Your task to perform on an android device: Show me popular games on the Play Store Image 0: 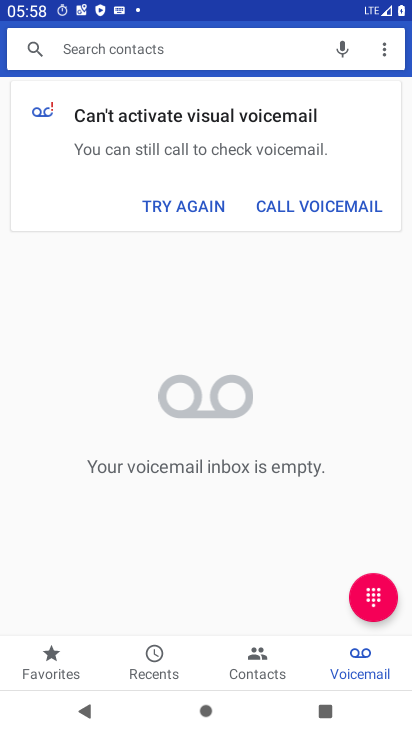
Step 0: press home button
Your task to perform on an android device: Show me popular games on the Play Store Image 1: 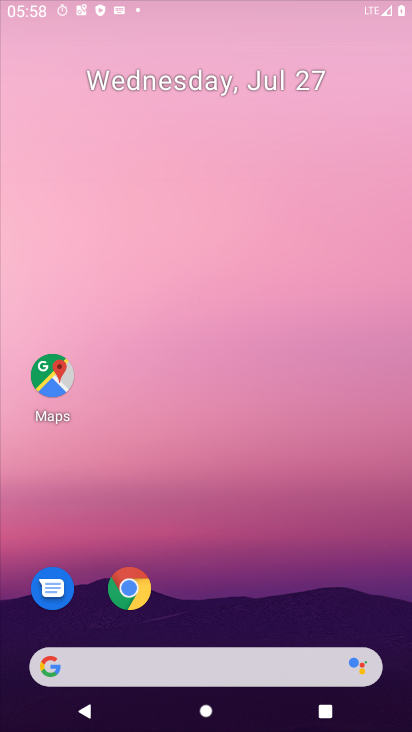
Step 1: drag from (246, 657) to (307, 56)
Your task to perform on an android device: Show me popular games on the Play Store Image 2: 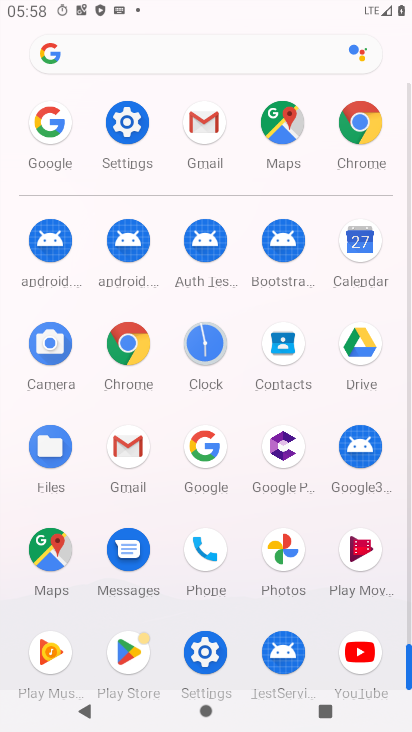
Step 2: click (135, 651)
Your task to perform on an android device: Show me popular games on the Play Store Image 3: 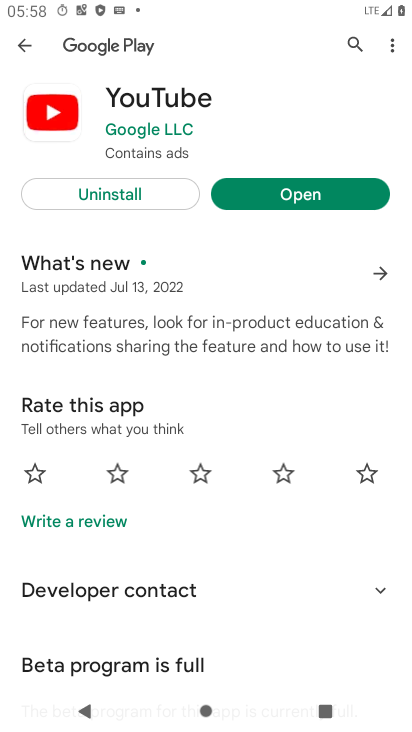
Step 3: press back button
Your task to perform on an android device: Show me popular games on the Play Store Image 4: 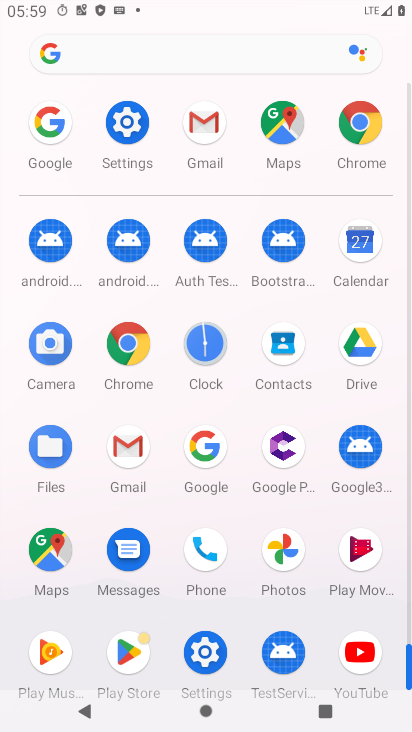
Step 4: click (140, 667)
Your task to perform on an android device: Show me popular games on the Play Store Image 5: 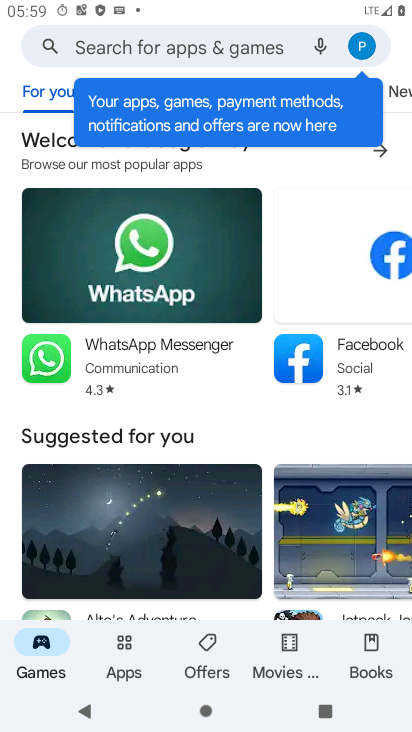
Step 5: task complete